Your task to perform on an android device: Go to display settings Image 0: 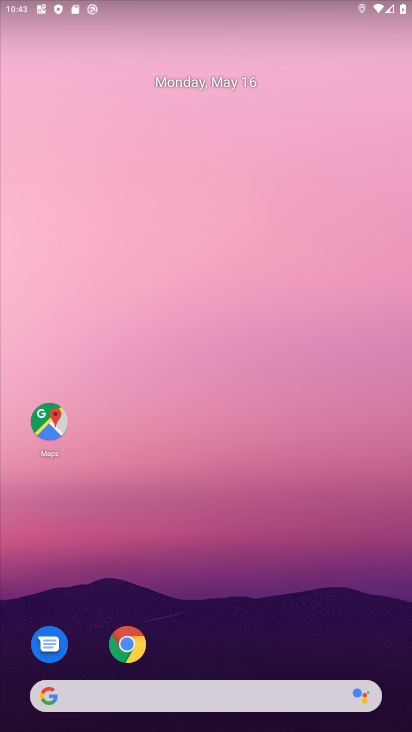
Step 0: drag from (211, 726) to (190, 237)
Your task to perform on an android device: Go to display settings Image 1: 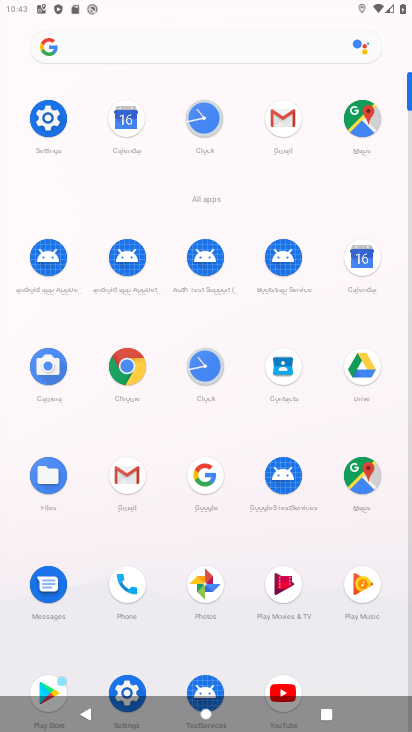
Step 1: click (42, 108)
Your task to perform on an android device: Go to display settings Image 2: 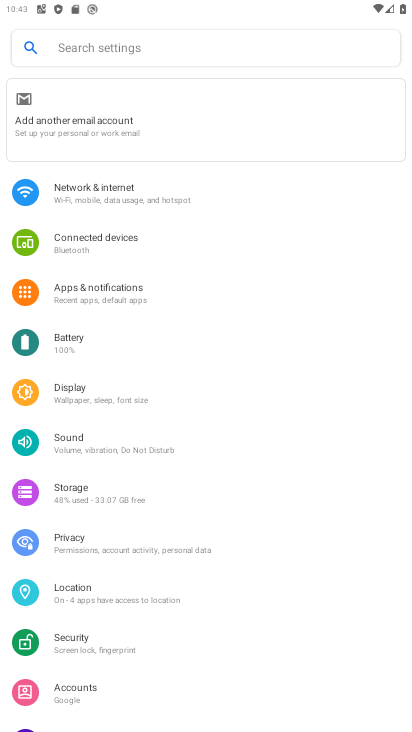
Step 2: click (70, 390)
Your task to perform on an android device: Go to display settings Image 3: 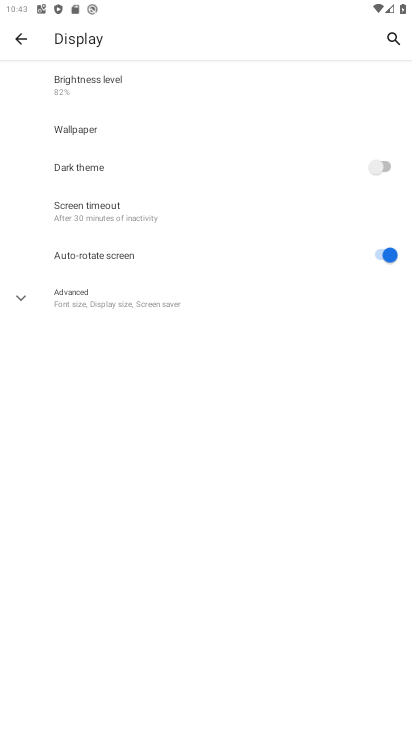
Step 3: task complete